Your task to perform on an android device: change the clock display to analog Image 0: 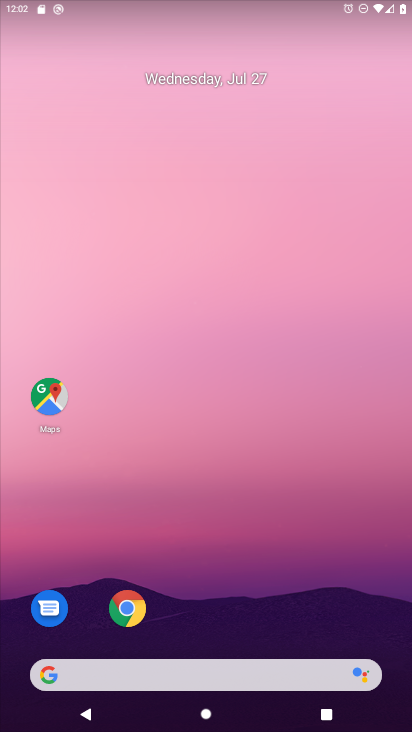
Step 0: drag from (290, 522) to (289, 29)
Your task to perform on an android device: change the clock display to analog Image 1: 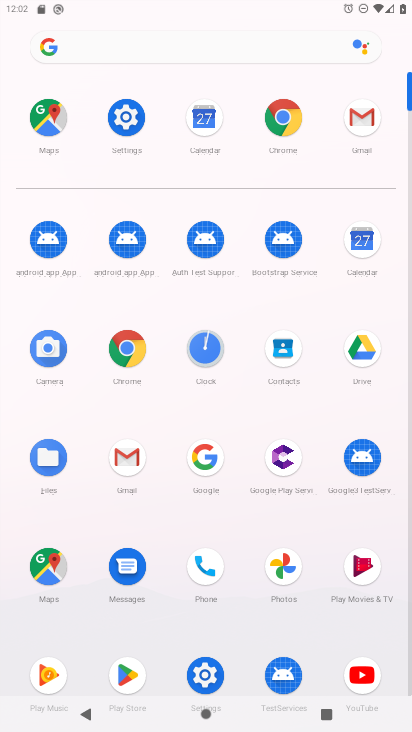
Step 1: click (208, 341)
Your task to perform on an android device: change the clock display to analog Image 2: 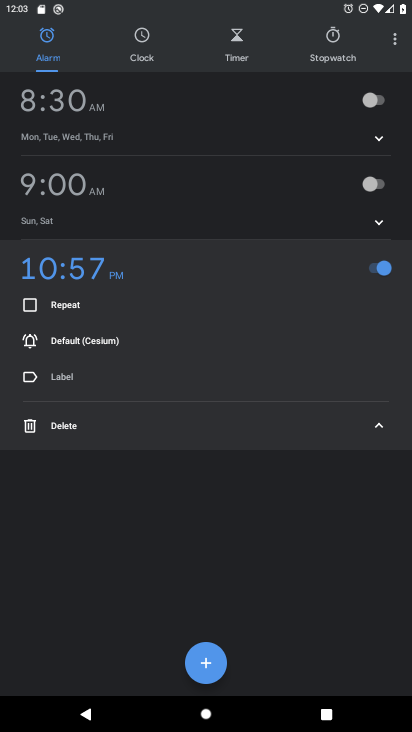
Step 2: click (398, 29)
Your task to perform on an android device: change the clock display to analog Image 3: 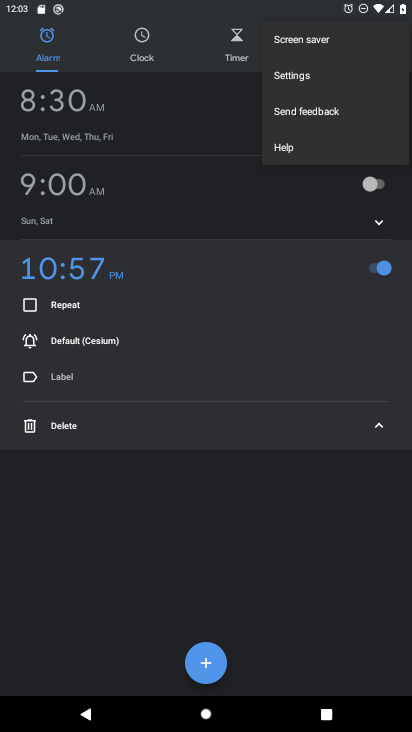
Step 3: click (299, 81)
Your task to perform on an android device: change the clock display to analog Image 4: 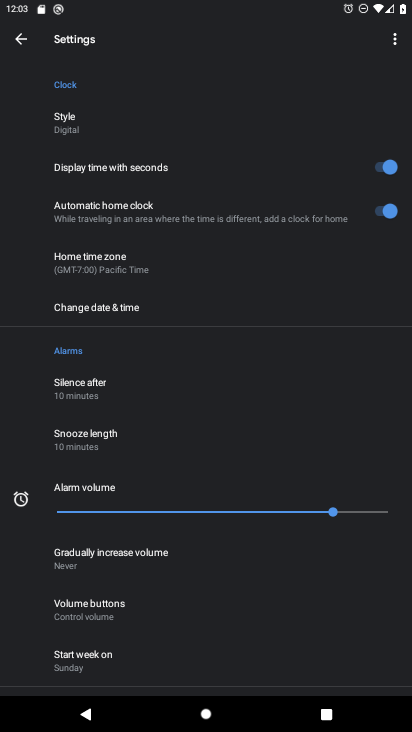
Step 4: click (74, 121)
Your task to perform on an android device: change the clock display to analog Image 5: 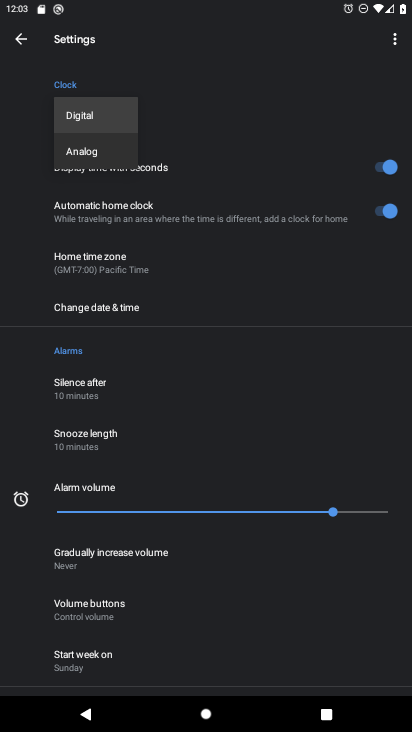
Step 5: click (99, 155)
Your task to perform on an android device: change the clock display to analog Image 6: 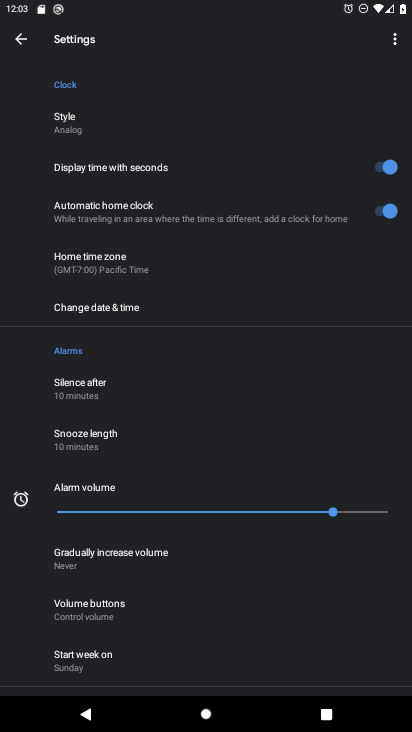
Step 6: task complete